Your task to perform on an android device: open the mobile data screen to see how much data has been used Image 0: 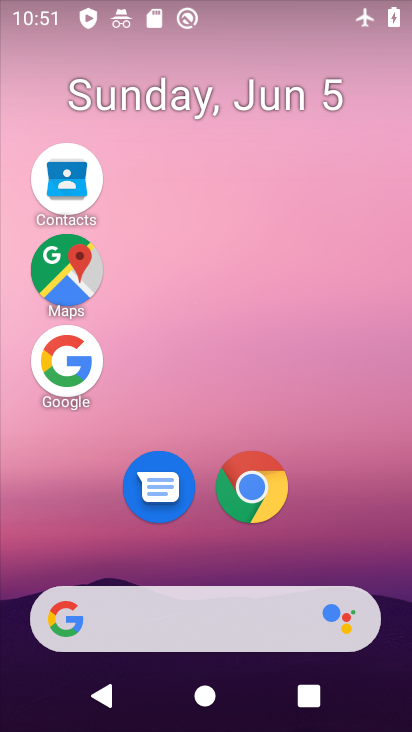
Step 0: drag from (236, 676) to (273, 107)
Your task to perform on an android device: open the mobile data screen to see how much data has been used Image 1: 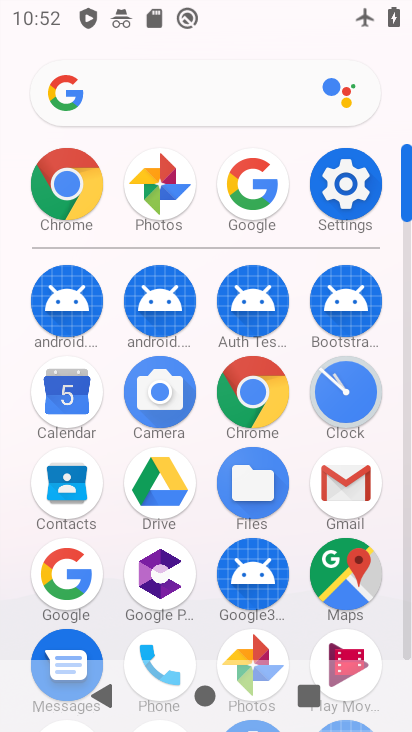
Step 1: click (344, 216)
Your task to perform on an android device: open the mobile data screen to see how much data has been used Image 2: 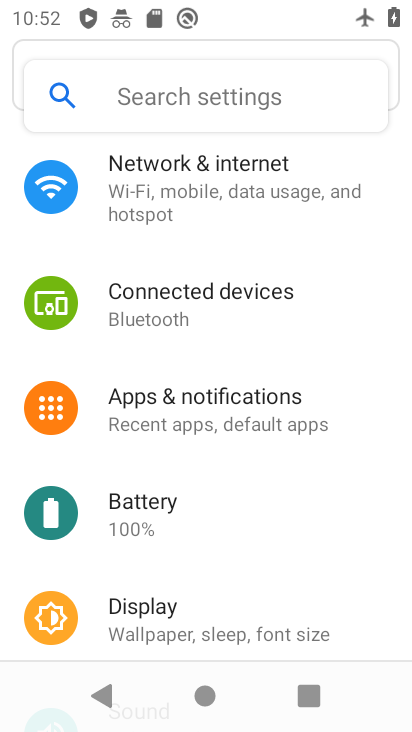
Step 2: click (281, 206)
Your task to perform on an android device: open the mobile data screen to see how much data has been used Image 3: 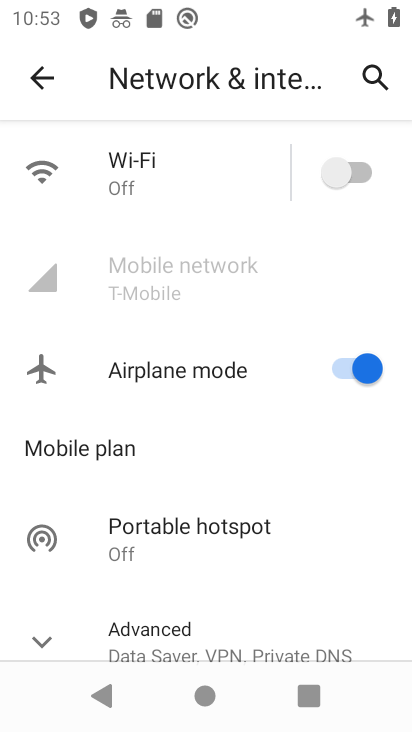
Step 3: task complete